Your task to perform on an android device: add a contact Image 0: 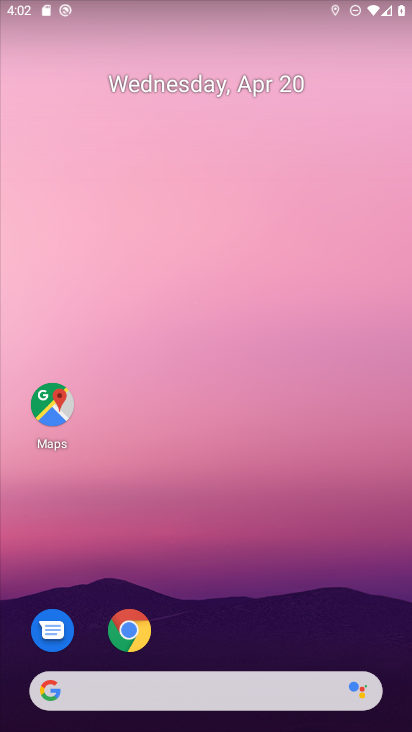
Step 0: drag from (290, 691) to (312, 5)
Your task to perform on an android device: add a contact Image 1: 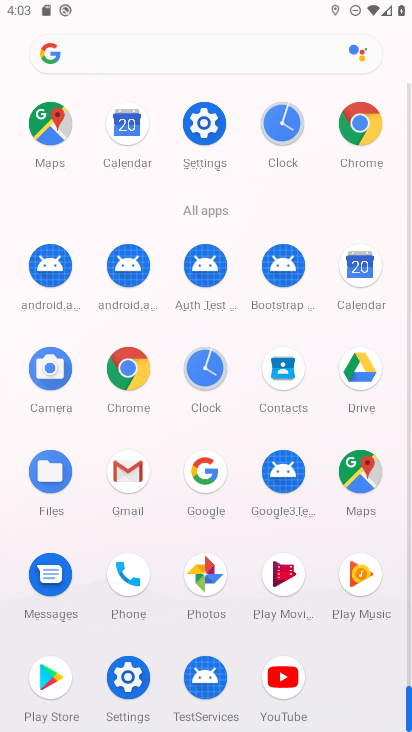
Step 1: click (292, 376)
Your task to perform on an android device: add a contact Image 2: 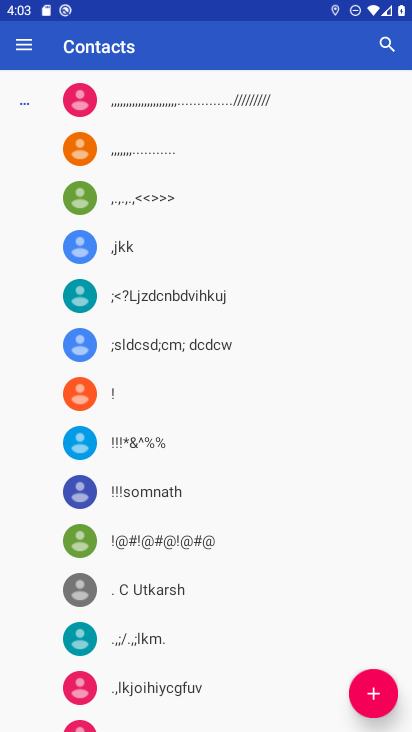
Step 2: click (368, 695)
Your task to perform on an android device: add a contact Image 3: 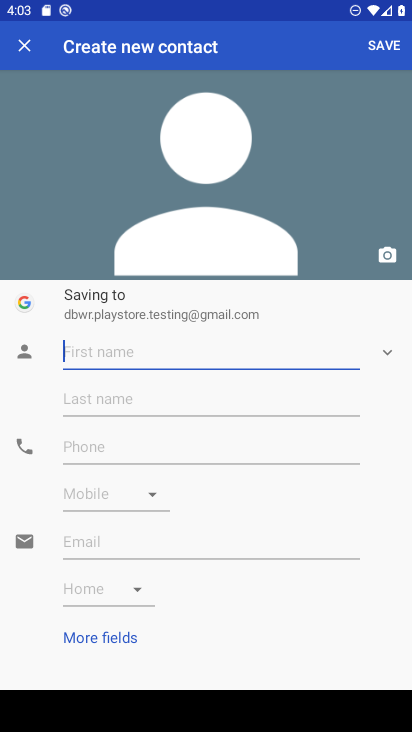
Step 3: click (193, 354)
Your task to perform on an android device: add a contact Image 4: 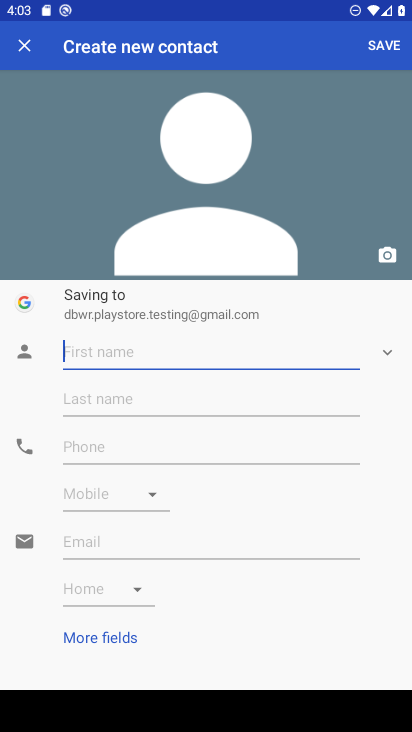
Step 4: type "hkggjgjggj"
Your task to perform on an android device: add a contact Image 5: 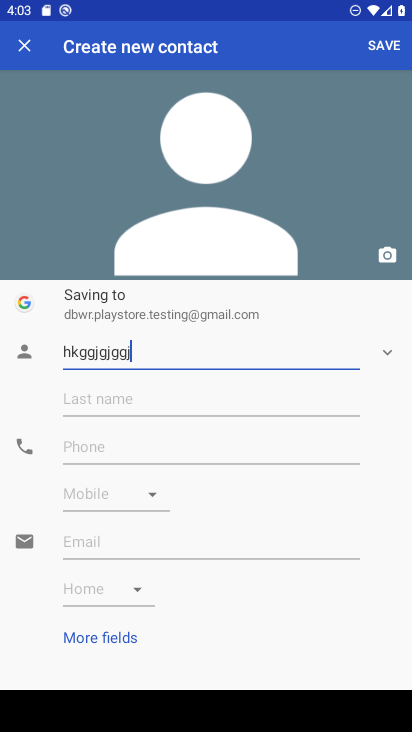
Step 5: click (224, 450)
Your task to perform on an android device: add a contact Image 6: 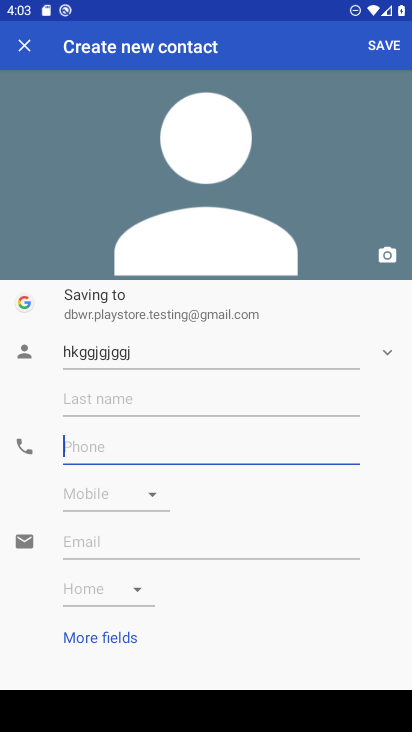
Step 6: type "8765567788"
Your task to perform on an android device: add a contact Image 7: 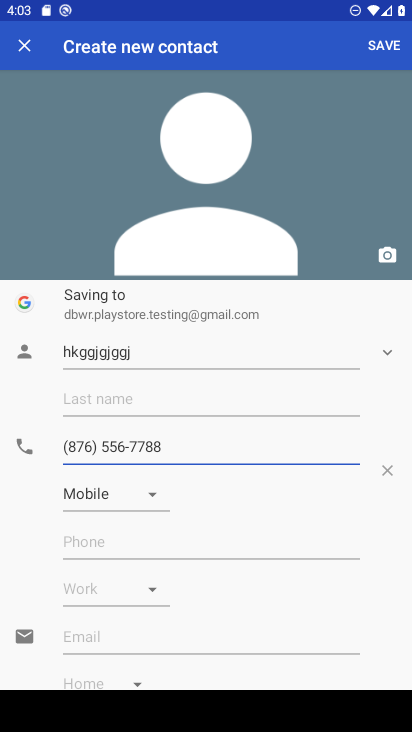
Step 7: click (385, 44)
Your task to perform on an android device: add a contact Image 8: 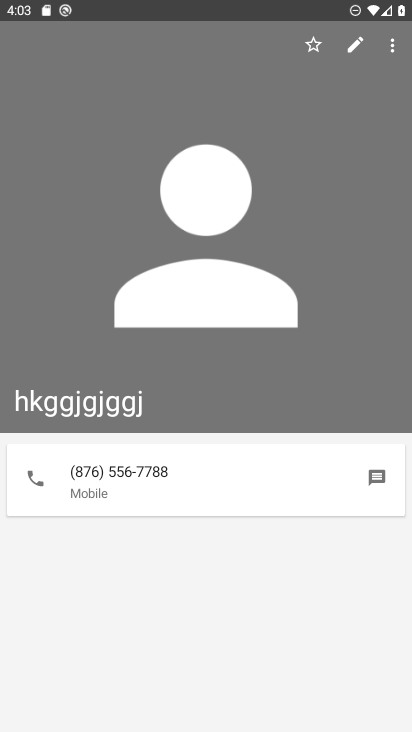
Step 8: task complete